Your task to perform on an android device: clear all cookies in the chrome app Image 0: 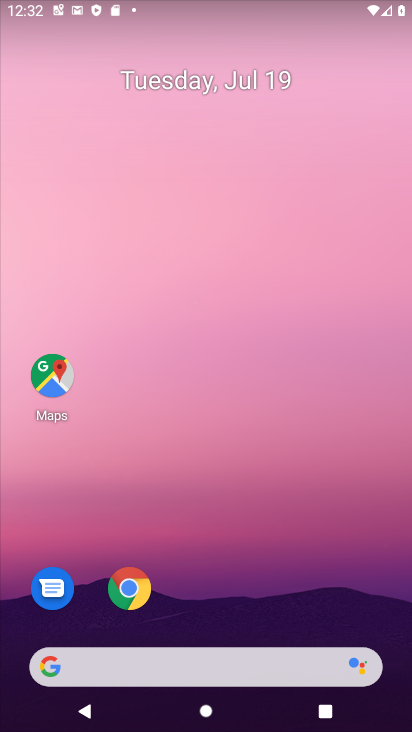
Step 0: drag from (351, 628) to (299, 24)
Your task to perform on an android device: clear all cookies in the chrome app Image 1: 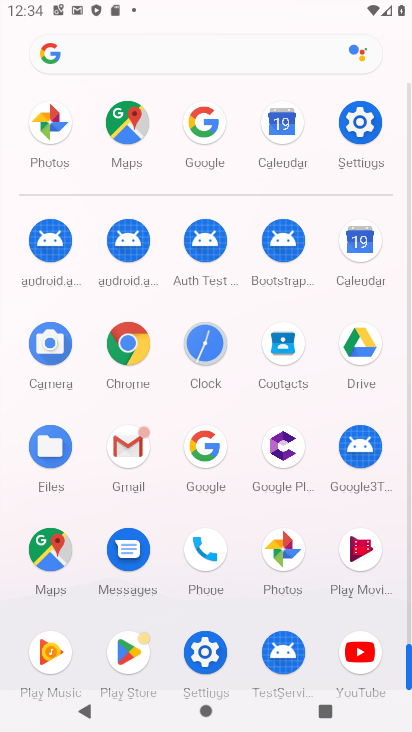
Step 1: click (121, 344)
Your task to perform on an android device: clear all cookies in the chrome app Image 2: 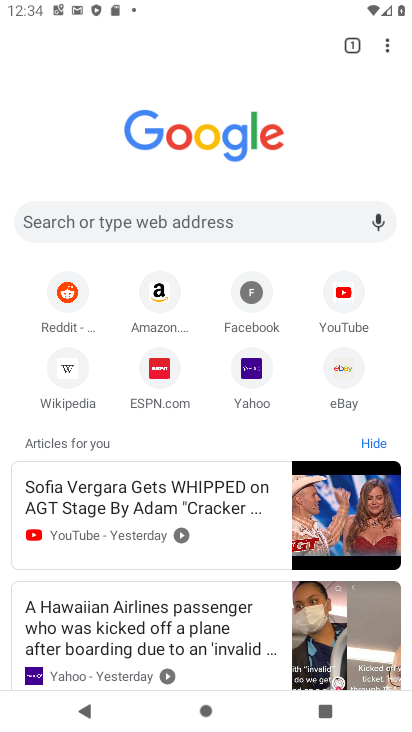
Step 2: click (388, 43)
Your task to perform on an android device: clear all cookies in the chrome app Image 3: 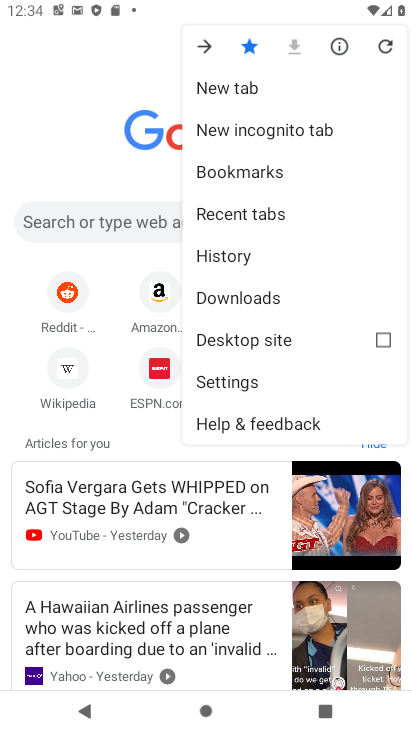
Step 3: click (231, 258)
Your task to perform on an android device: clear all cookies in the chrome app Image 4: 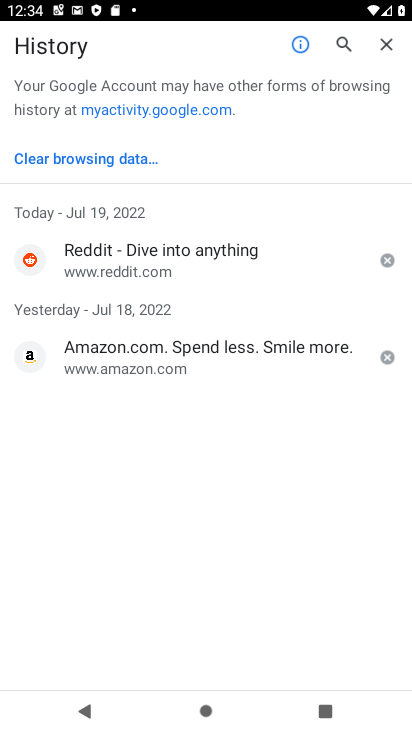
Step 4: click (128, 160)
Your task to perform on an android device: clear all cookies in the chrome app Image 5: 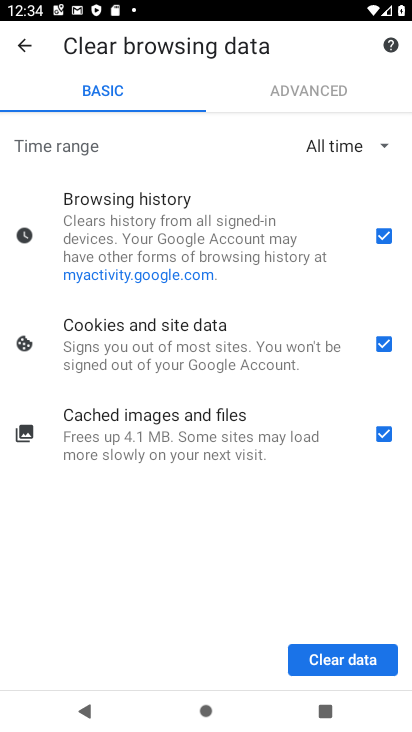
Step 5: click (336, 656)
Your task to perform on an android device: clear all cookies in the chrome app Image 6: 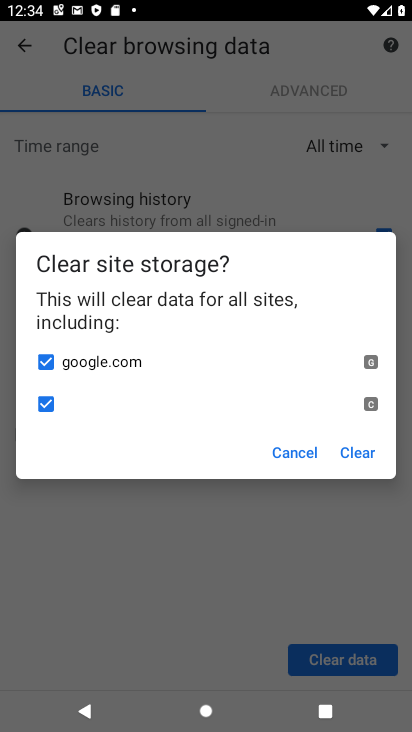
Step 6: click (354, 447)
Your task to perform on an android device: clear all cookies in the chrome app Image 7: 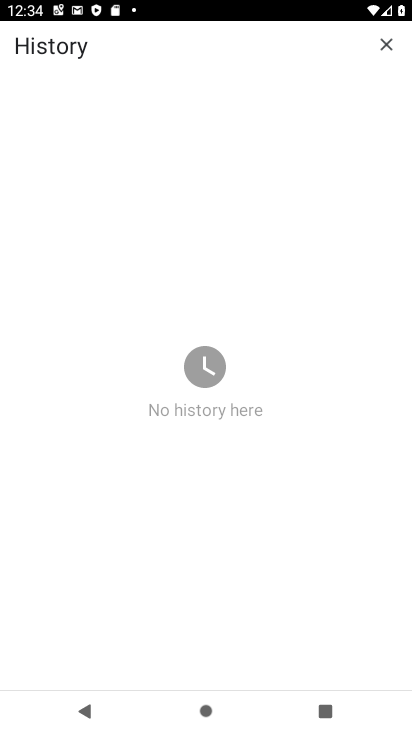
Step 7: task complete